Your task to perform on an android device: empty trash in the gmail app Image 0: 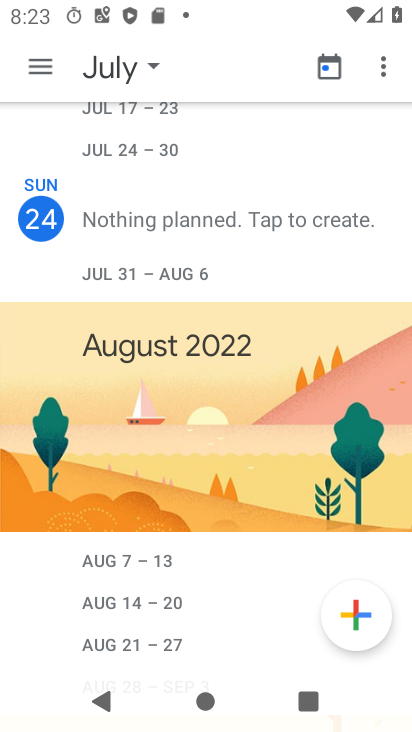
Step 0: press home button
Your task to perform on an android device: empty trash in the gmail app Image 1: 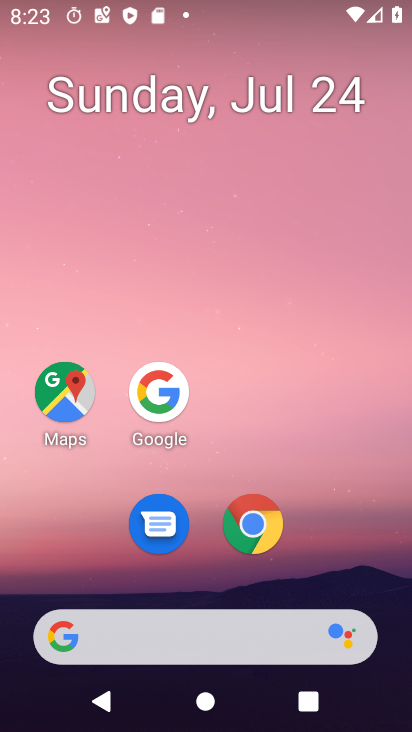
Step 1: drag from (268, 540) to (352, 5)
Your task to perform on an android device: empty trash in the gmail app Image 2: 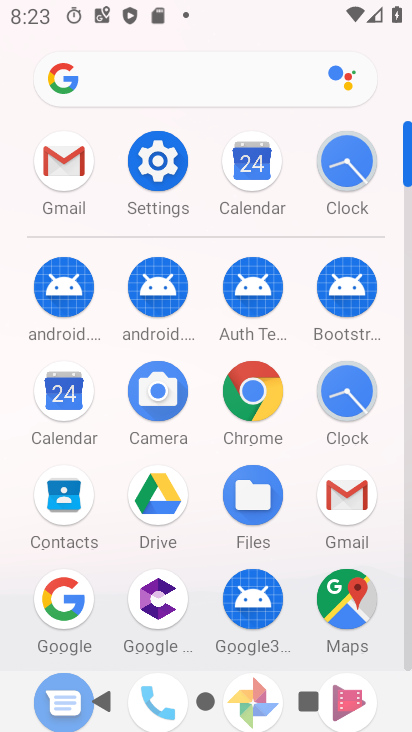
Step 2: click (69, 160)
Your task to perform on an android device: empty trash in the gmail app Image 3: 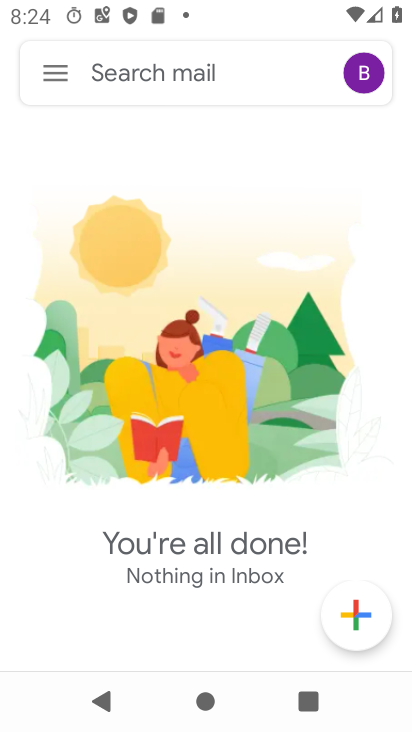
Step 3: click (47, 75)
Your task to perform on an android device: empty trash in the gmail app Image 4: 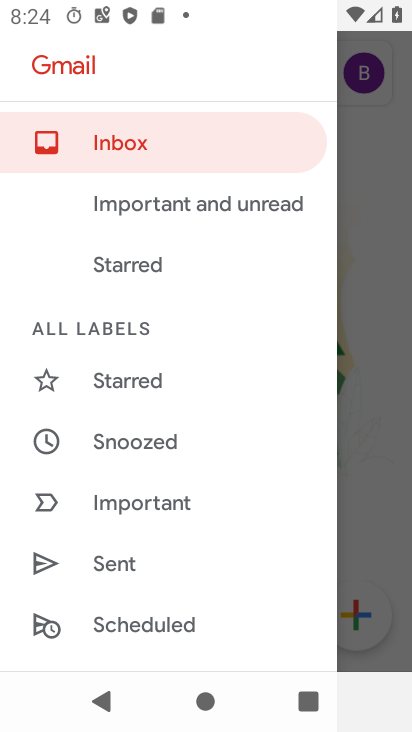
Step 4: drag from (258, 532) to (340, 140)
Your task to perform on an android device: empty trash in the gmail app Image 5: 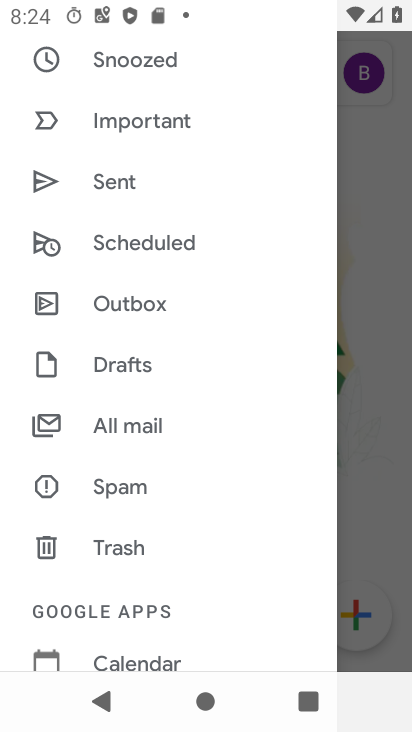
Step 5: click (141, 487)
Your task to perform on an android device: empty trash in the gmail app Image 6: 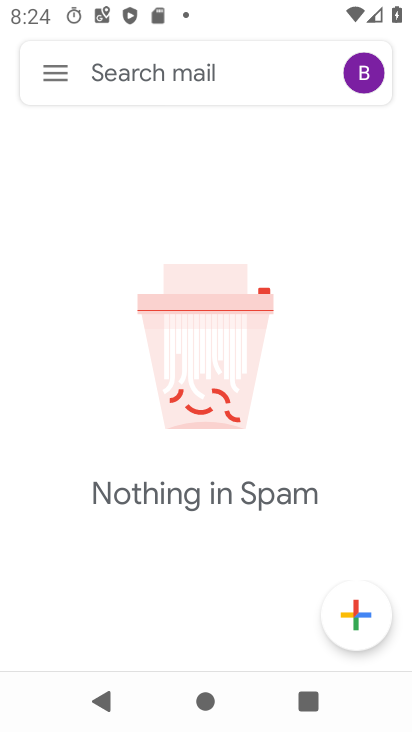
Step 6: click (52, 70)
Your task to perform on an android device: empty trash in the gmail app Image 7: 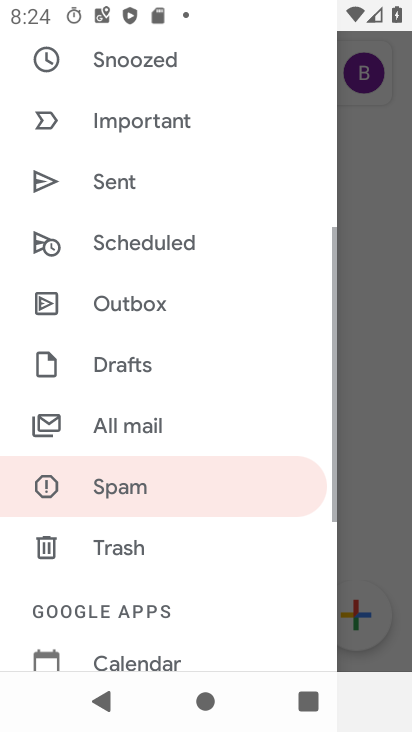
Step 7: click (150, 550)
Your task to perform on an android device: empty trash in the gmail app Image 8: 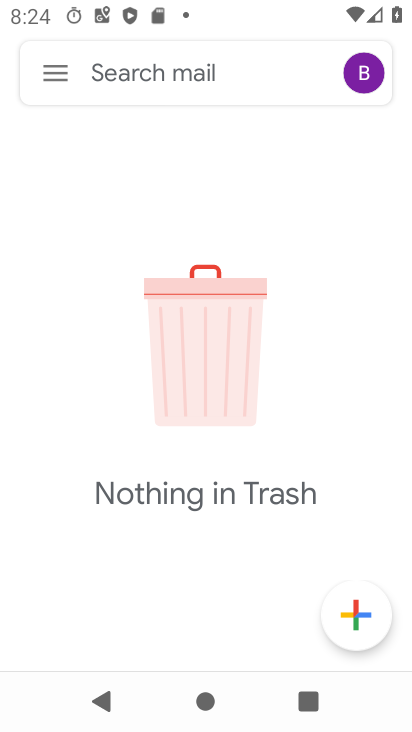
Step 8: task complete